Your task to perform on an android device: turn on priority inbox in the gmail app Image 0: 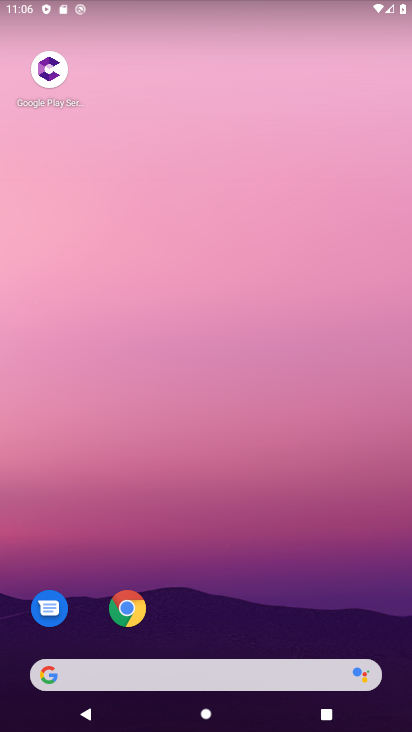
Step 0: drag from (240, 687) to (240, 165)
Your task to perform on an android device: turn on priority inbox in the gmail app Image 1: 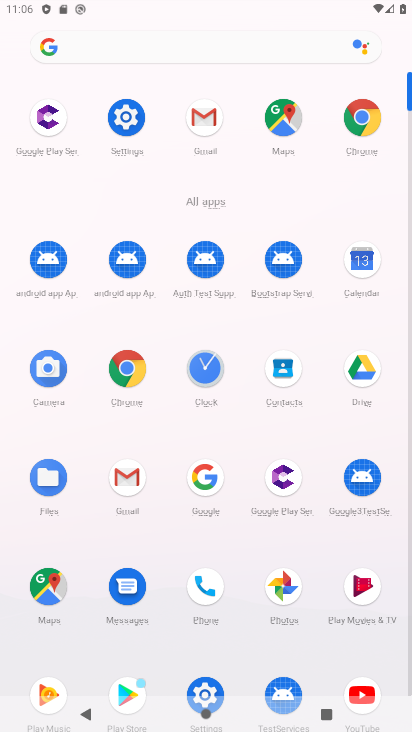
Step 1: click (126, 475)
Your task to perform on an android device: turn on priority inbox in the gmail app Image 2: 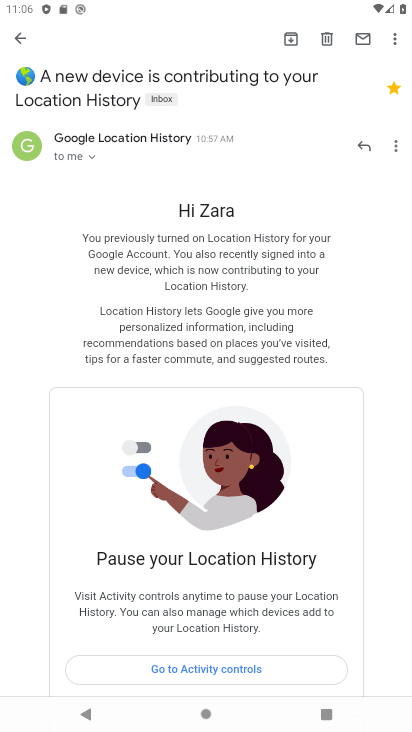
Step 2: click (20, 41)
Your task to perform on an android device: turn on priority inbox in the gmail app Image 3: 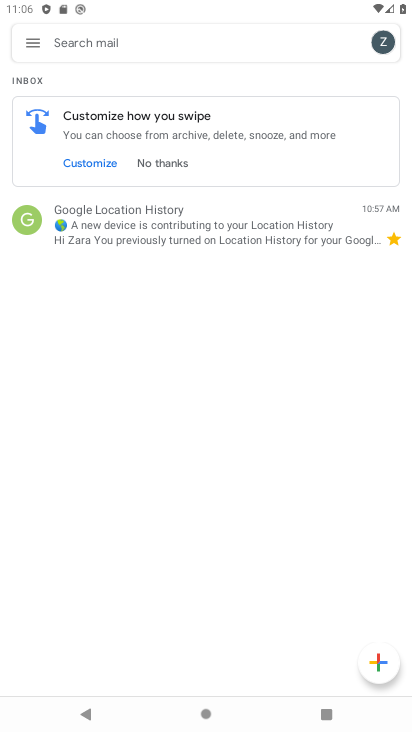
Step 3: click (32, 43)
Your task to perform on an android device: turn on priority inbox in the gmail app Image 4: 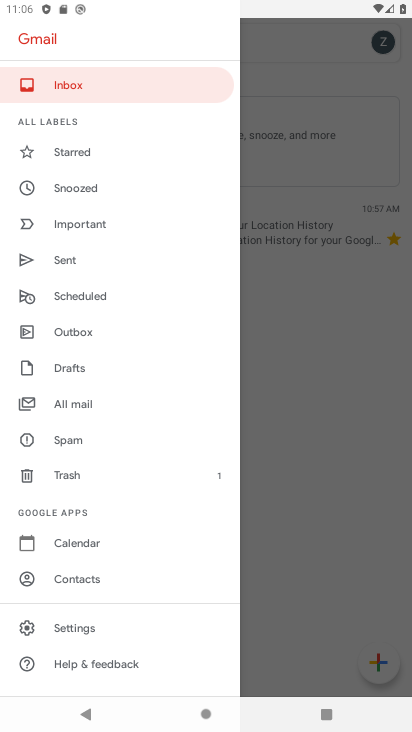
Step 4: click (71, 624)
Your task to perform on an android device: turn on priority inbox in the gmail app Image 5: 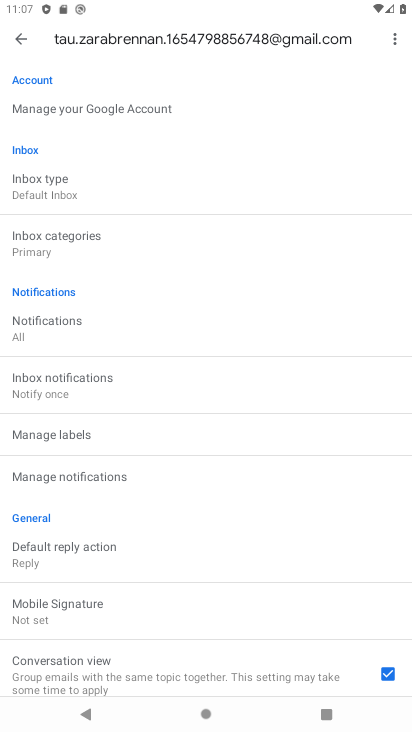
Step 5: click (38, 187)
Your task to perform on an android device: turn on priority inbox in the gmail app Image 6: 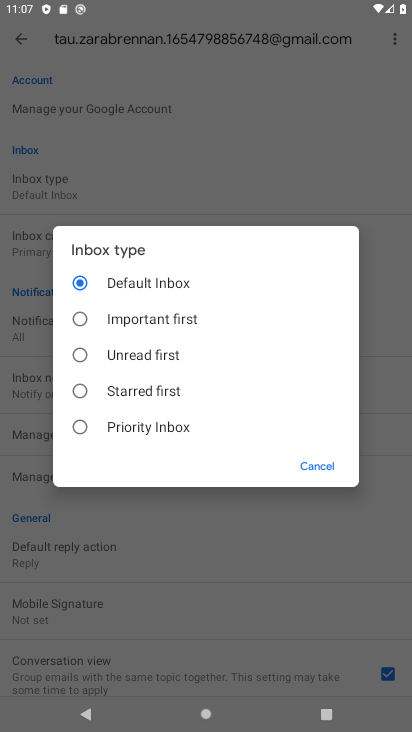
Step 6: click (79, 430)
Your task to perform on an android device: turn on priority inbox in the gmail app Image 7: 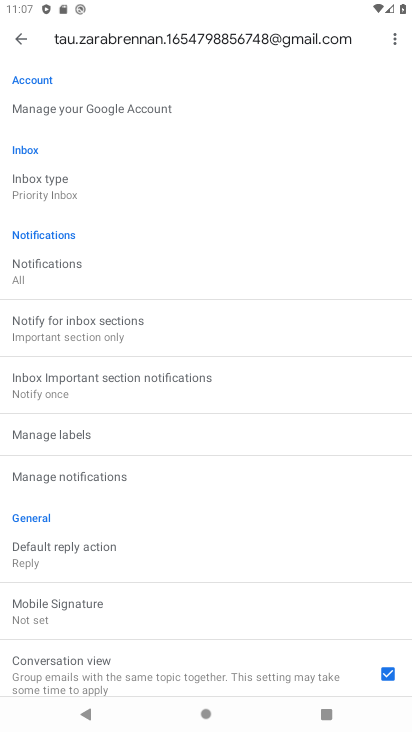
Step 7: task complete